Your task to perform on an android device: turn off smart reply in the gmail app Image 0: 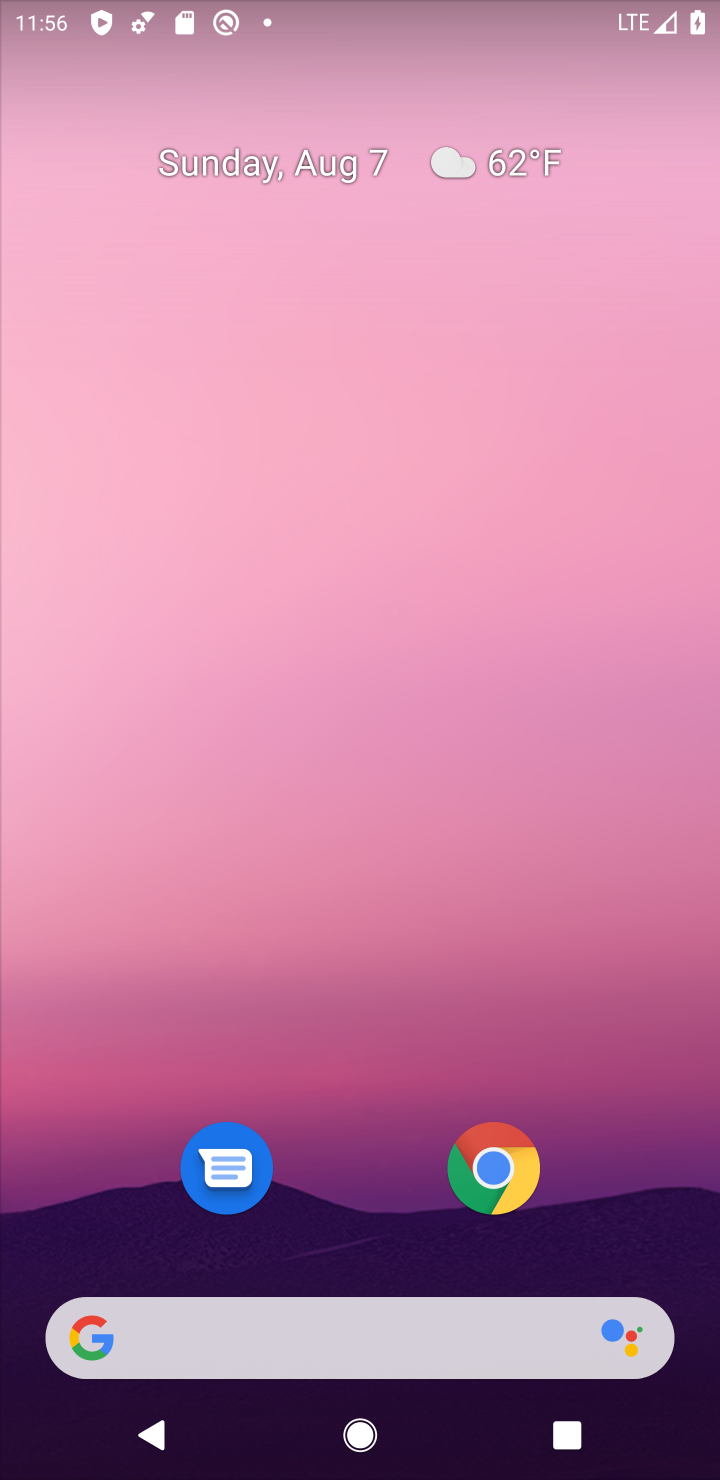
Step 0: drag from (423, 674) to (442, 238)
Your task to perform on an android device: turn off smart reply in the gmail app Image 1: 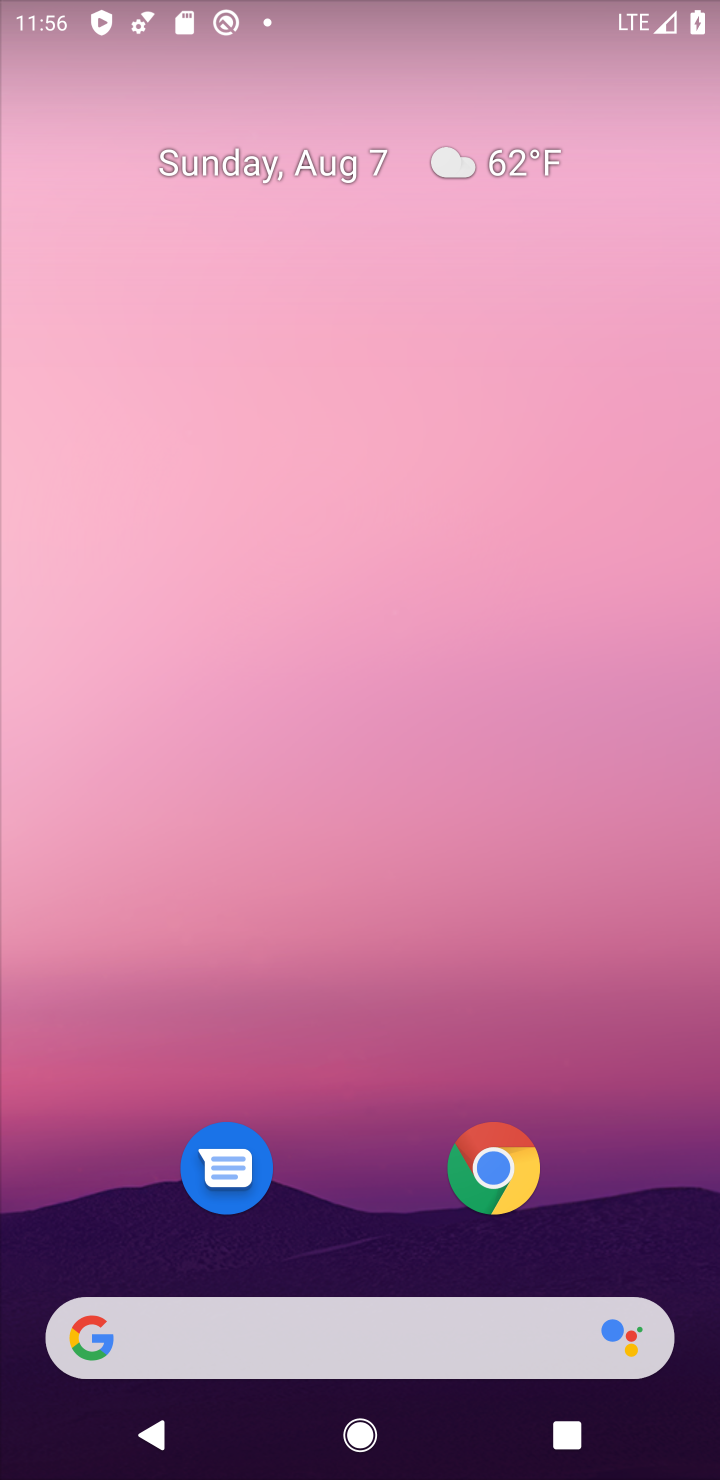
Step 1: drag from (363, 1063) to (459, 0)
Your task to perform on an android device: turn off smart reply in the gmail app Image 2: 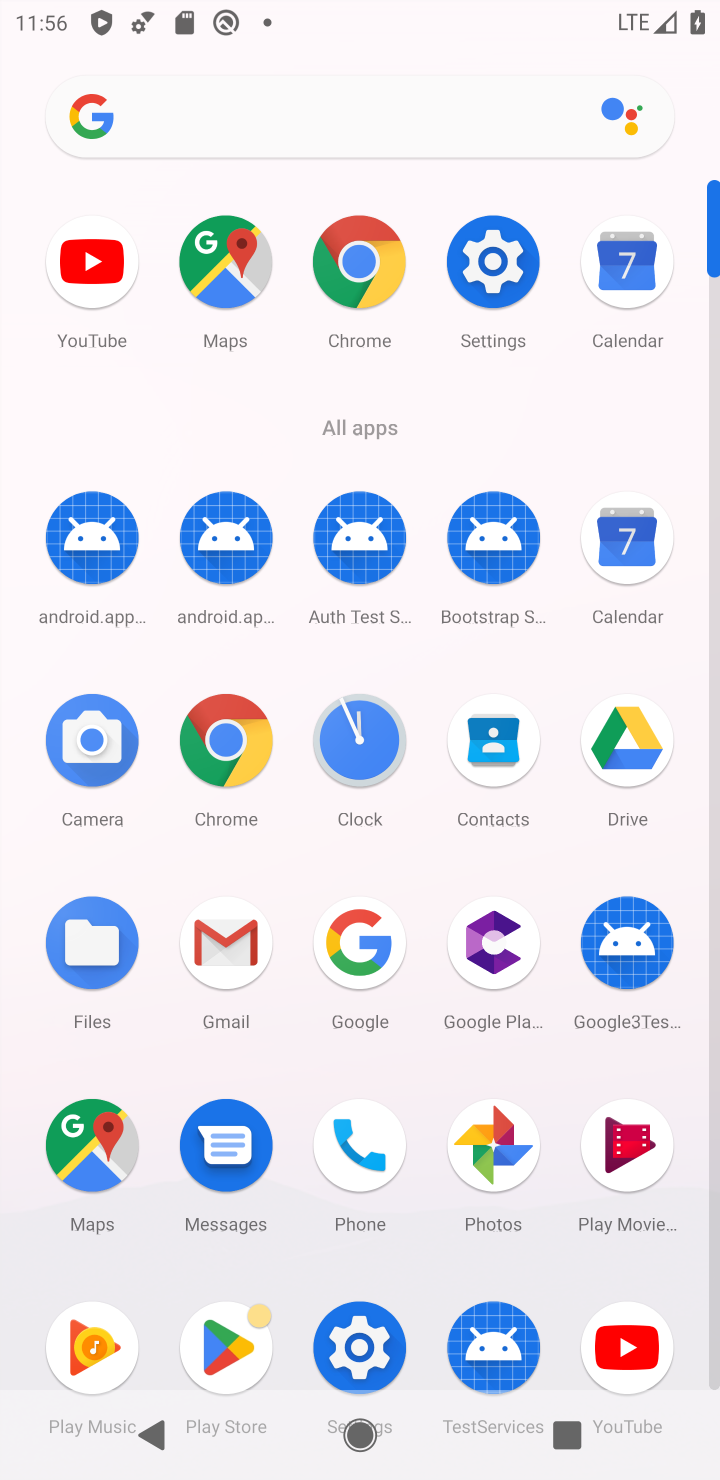
Step 2: click (235, 949)
Your task to perform on an android device: turn off smart reply in the gmail app Image 3: 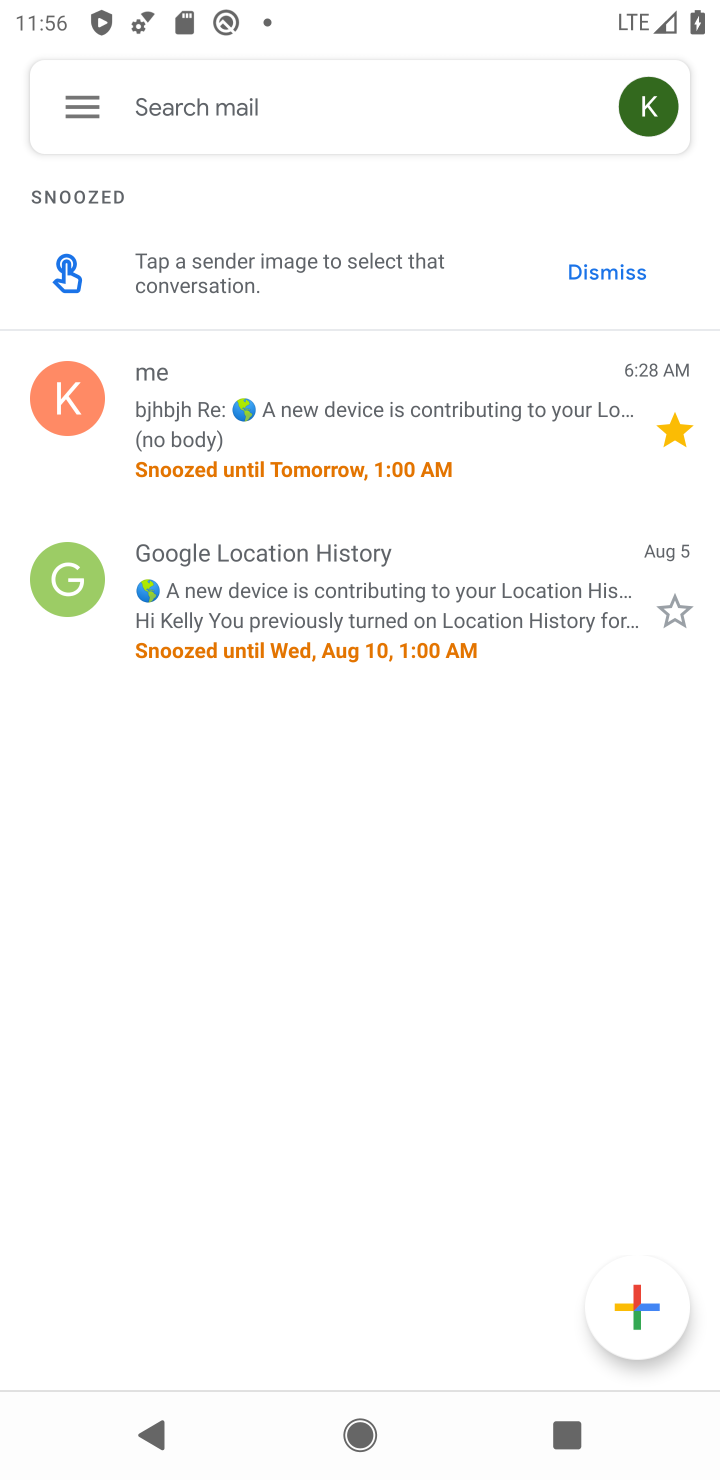
Step 3: click (68, 104)
Your task to perform on an android device: turn off smart reply in the gmail app Image 4: 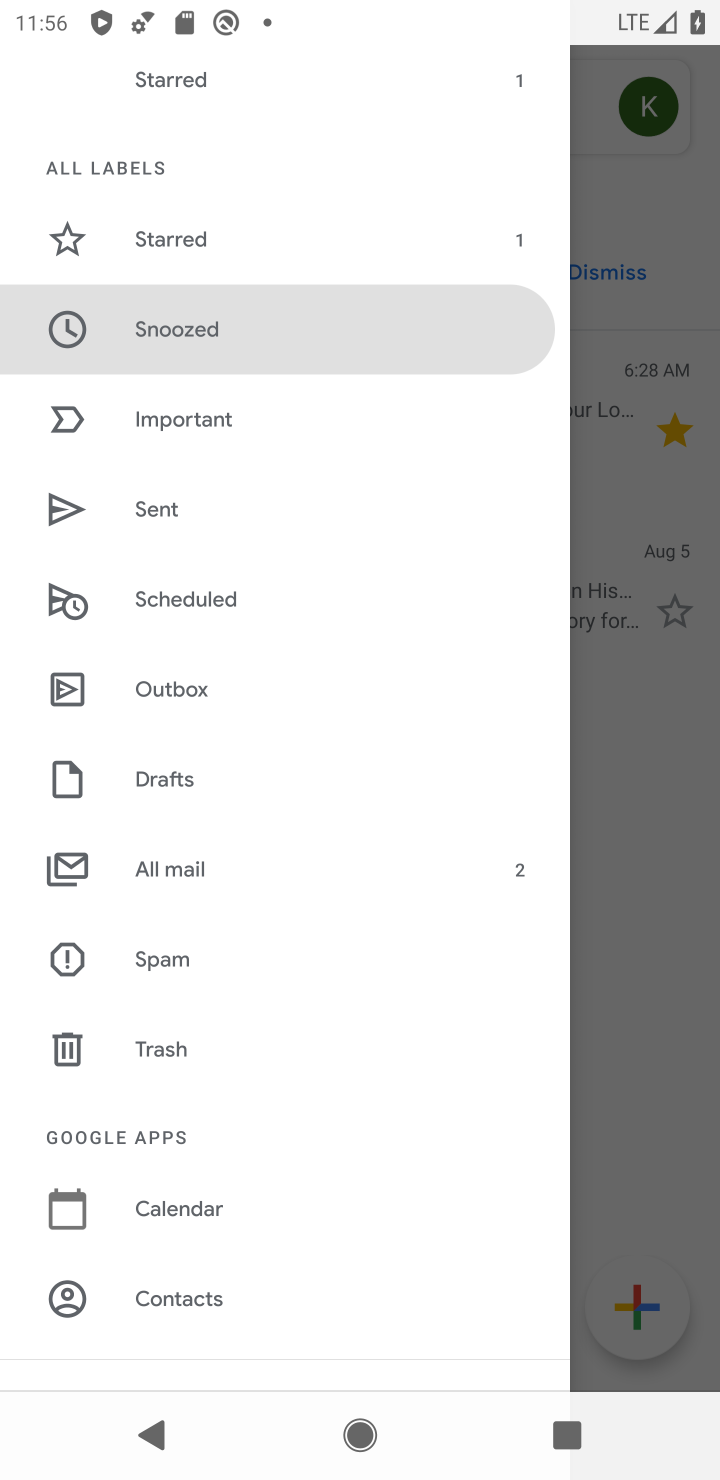
Step 4: drag from (402, 1097) to (362, 77)
Your task to perform on an android device: turn off smart reply in the gmail app Image 5: 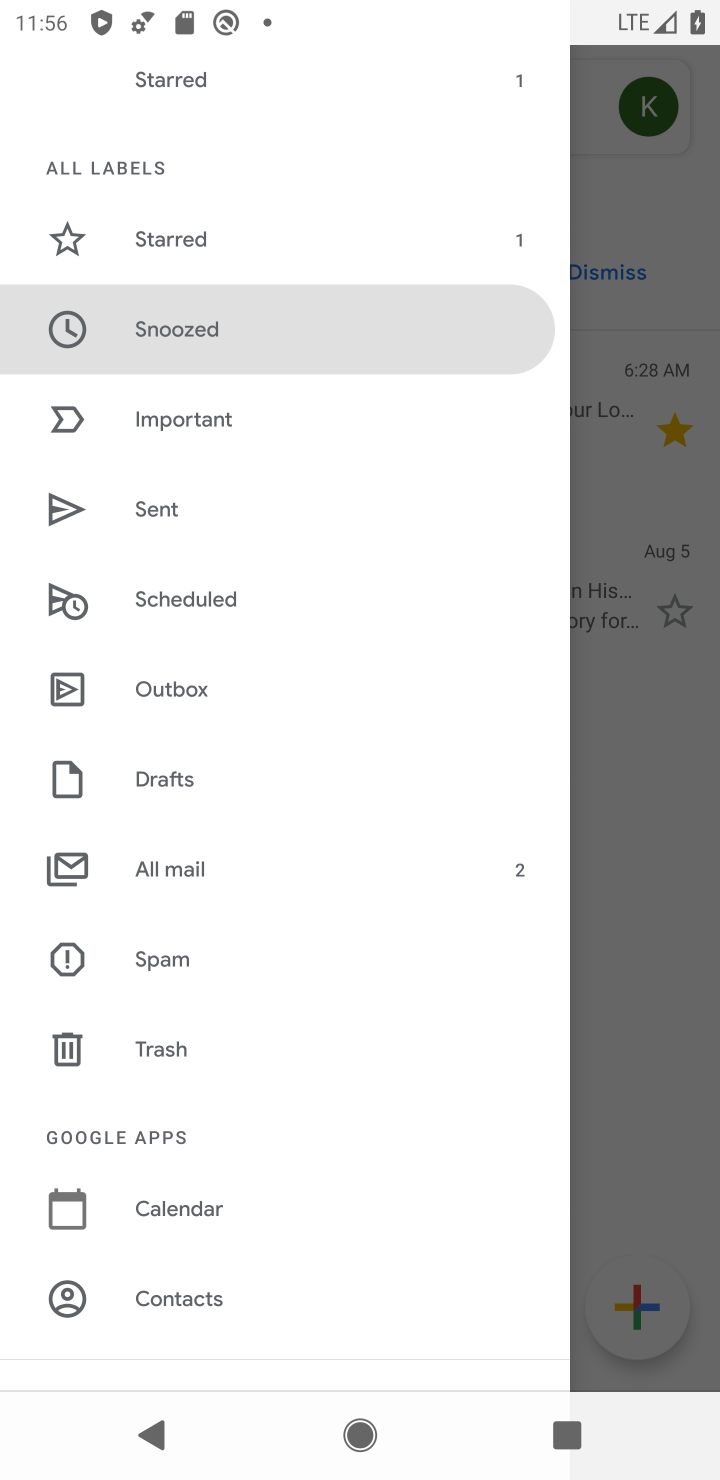
Step 5: drag from (266, 1015) to (275, 73)
Your task to perform on an android device: turn off smart reply in the gmail app Image 6: 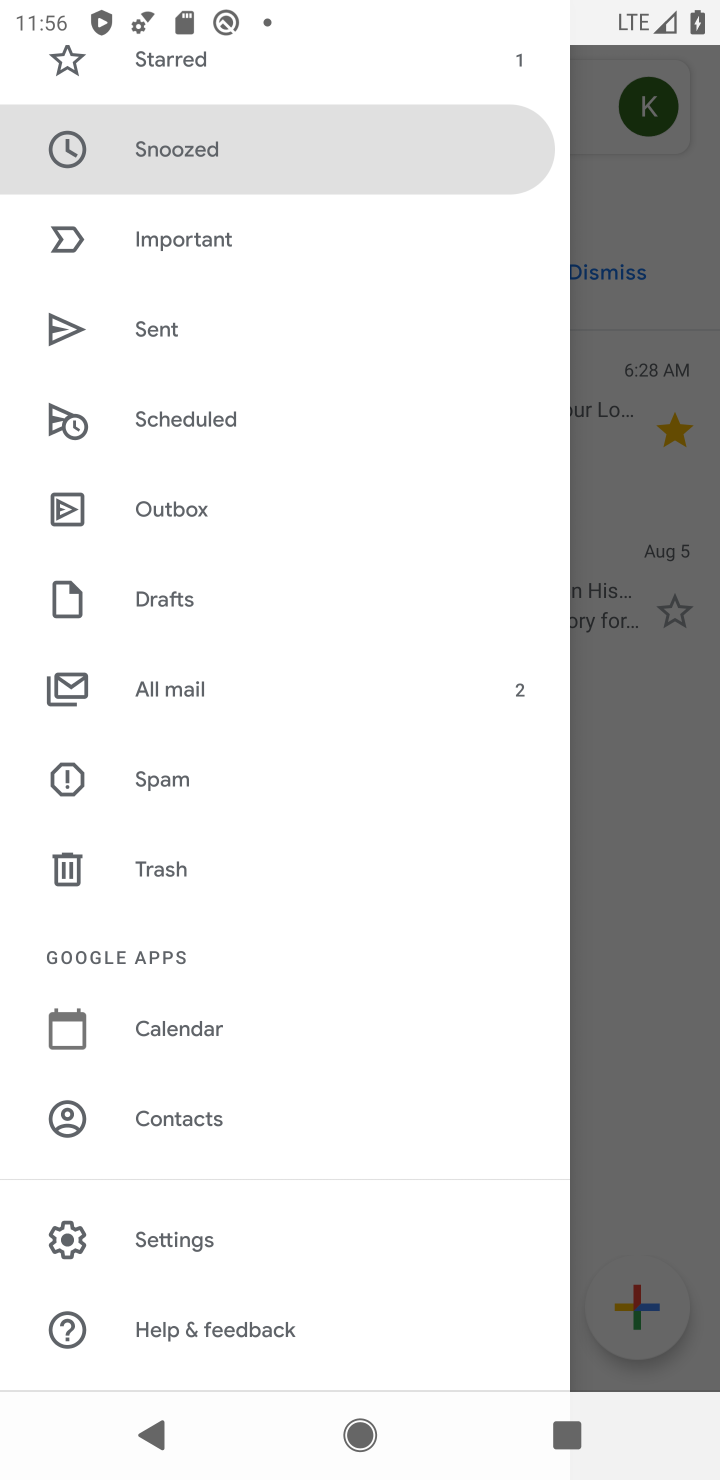
Step 6: click (182, 1238)
Your task to perform on an android device: turn off smart reply in the gmail app Image 7: 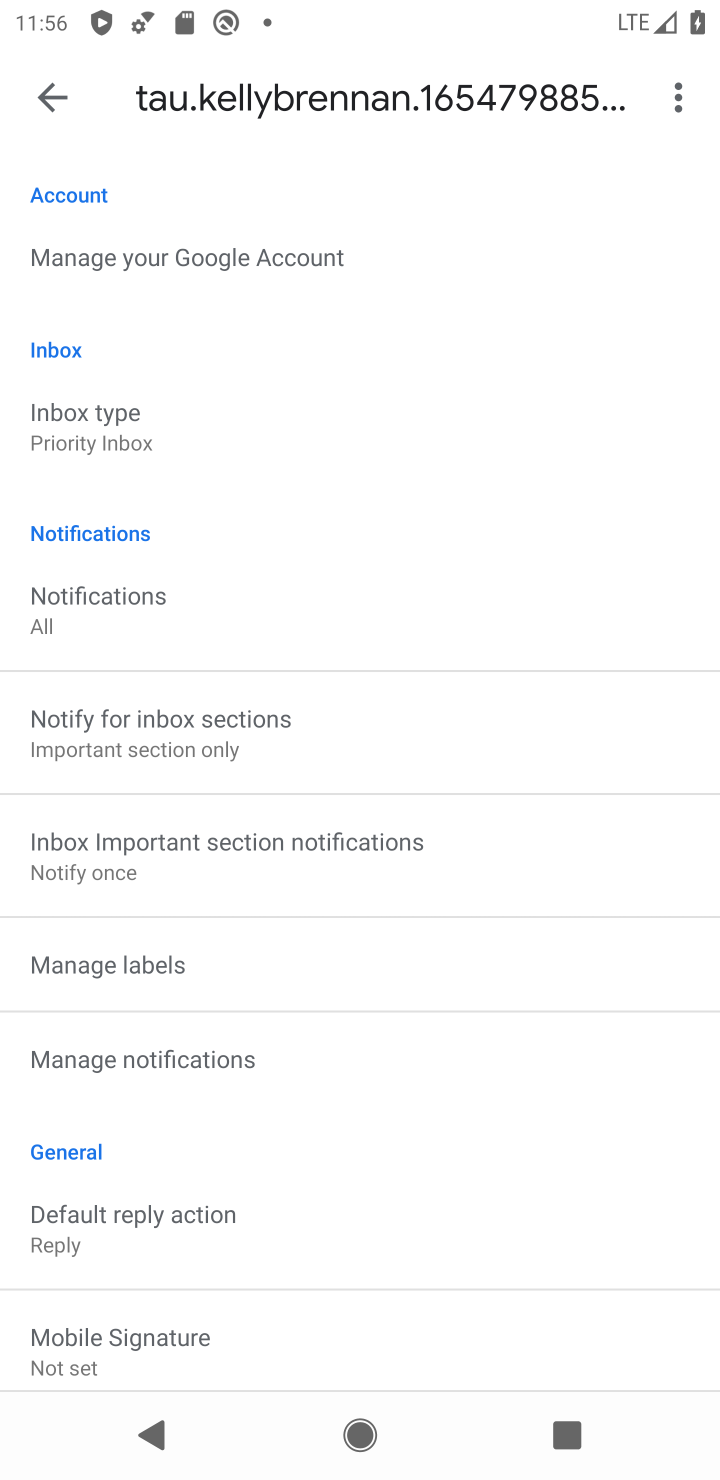
Step 7: drag from (432, 1089) to (501, 213)
Your task to perform on an android device: turn off smart reply in the gmail app Image 8: 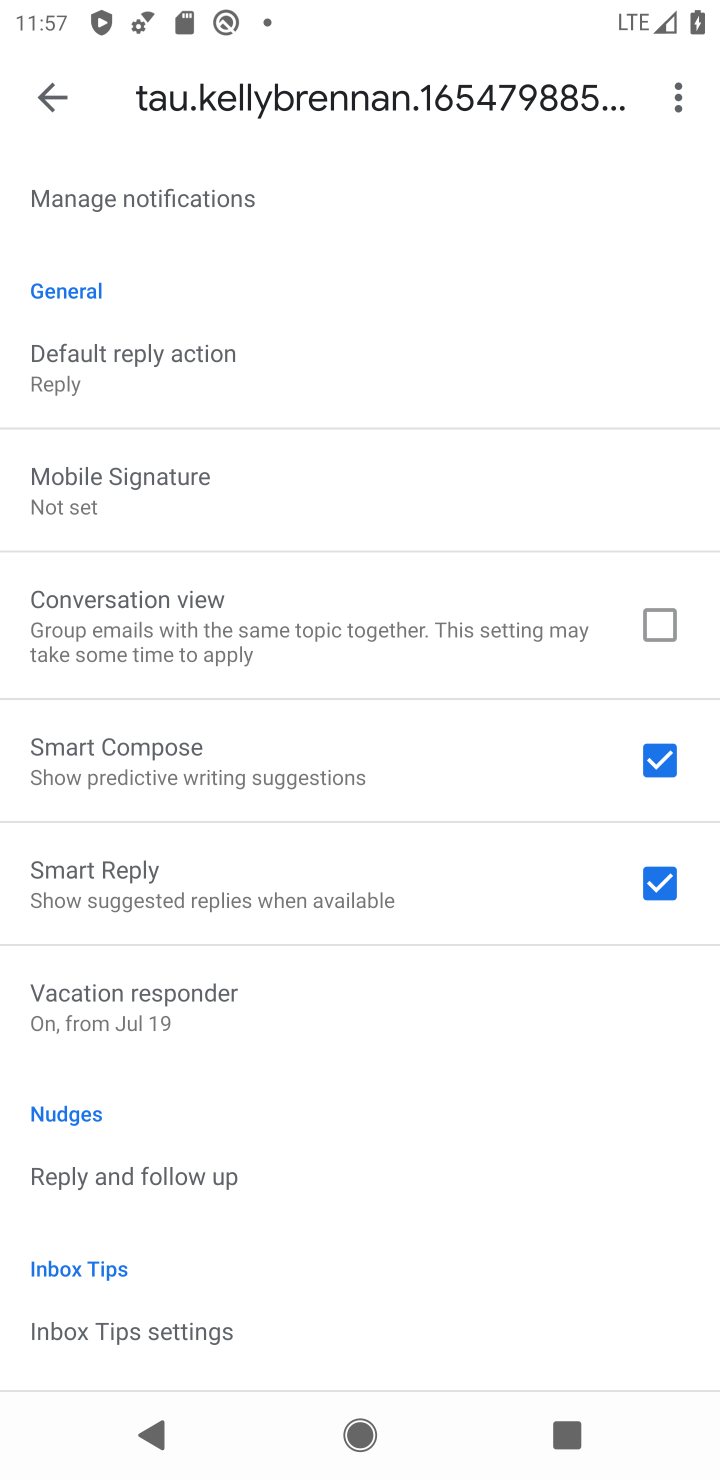
Step 8: click (663, 883)
Your task to perform on an android device: turn off smart reply in the gmail app Image 9: 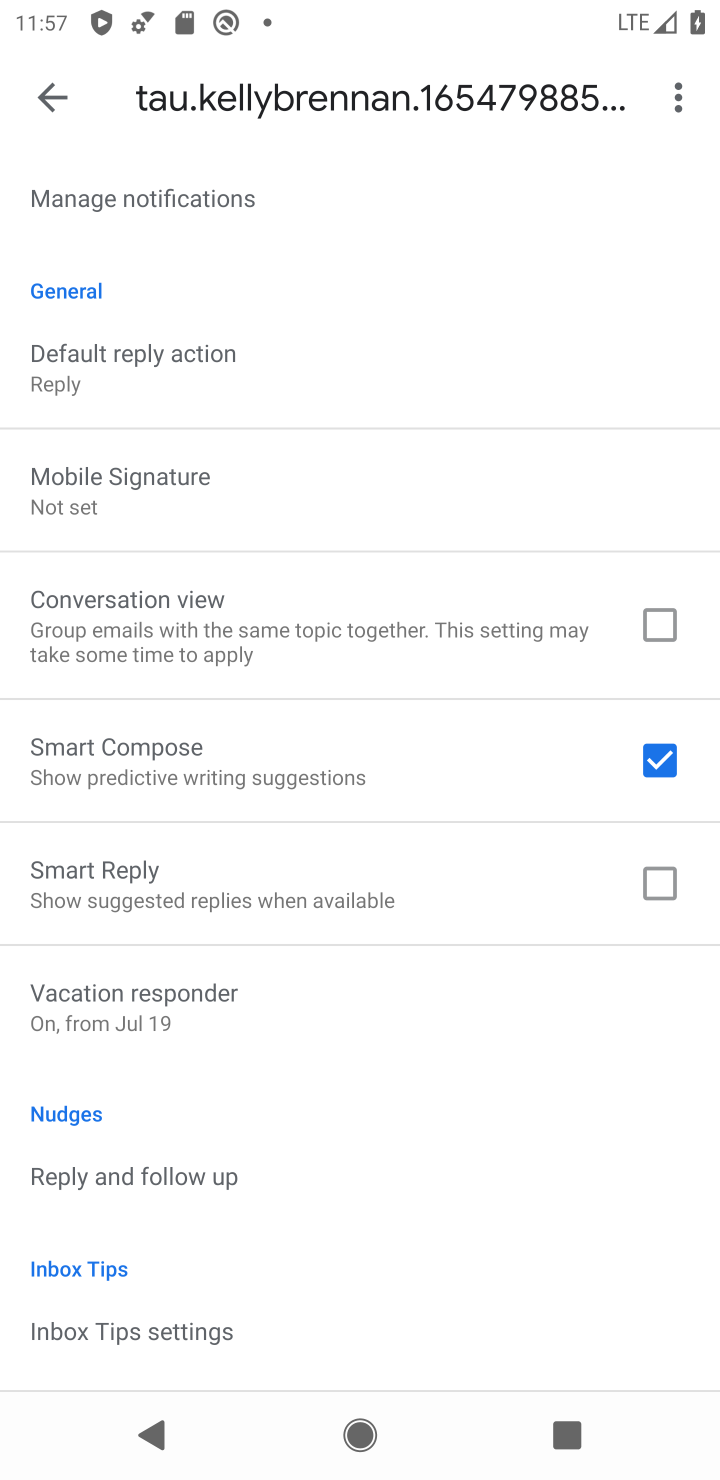
Step 9: task complete